Your task to perform on an android device: Open settings on Google Maps Image 0: 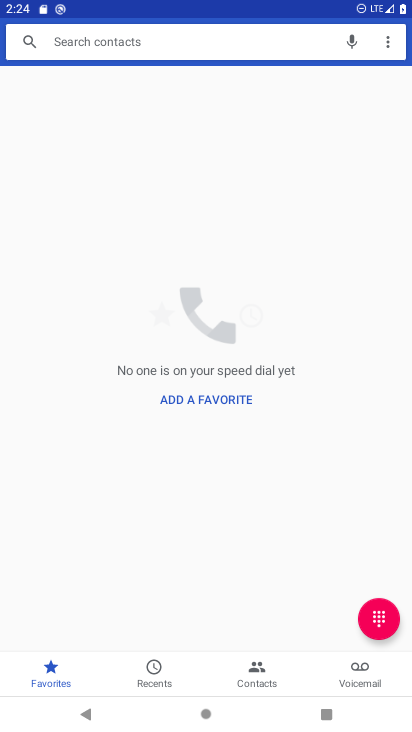
Step 0: press home button
Your task to perform on an android device: Open settings on Google Maps Image 1: 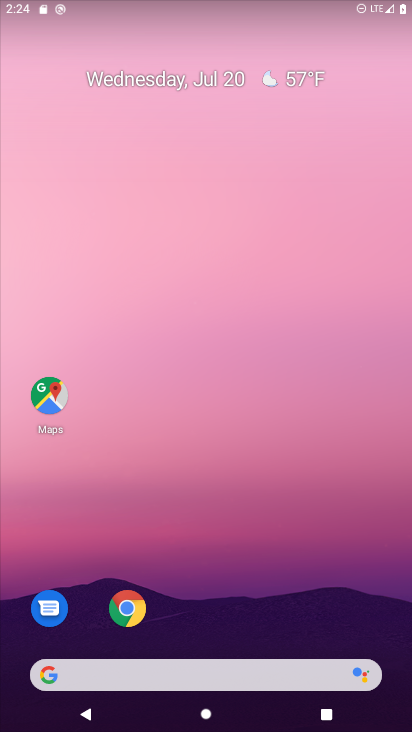
Step 1: drag from (236, 712) to (262, 153)
Your task to perform on an android device: Open settings on Google Maps Image 2: 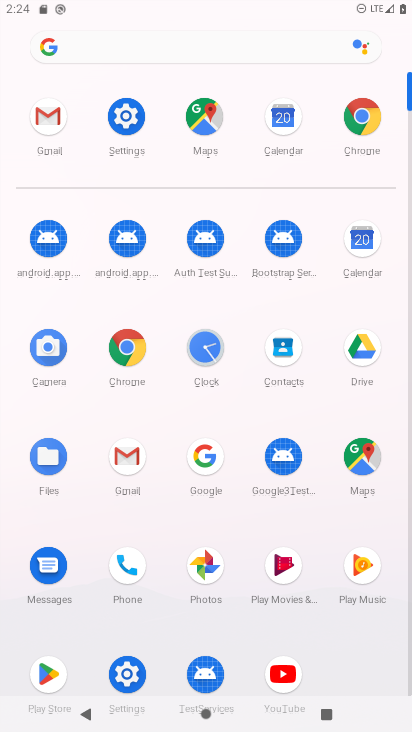
Step 2: click (355, 460)
Your task to perform on an android device: Open settings on Google Maps Image 3: 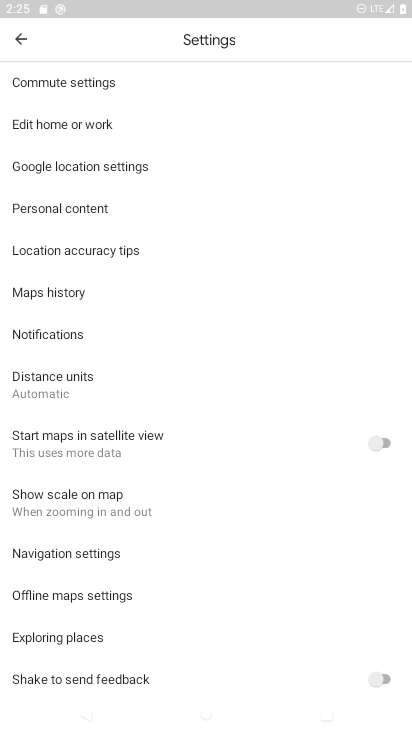
Step 3: task complete